Your task to perform on an android device: Go to Wikipedia Image 0: 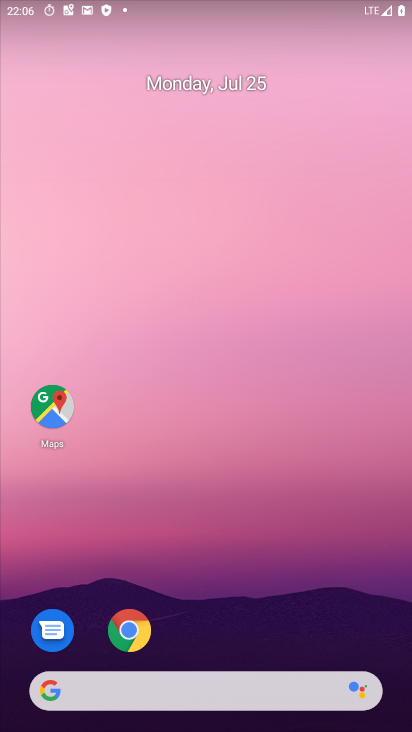
Step 0: press home button
Your task to perform on an android device: Go to Wikipedia Image 1: 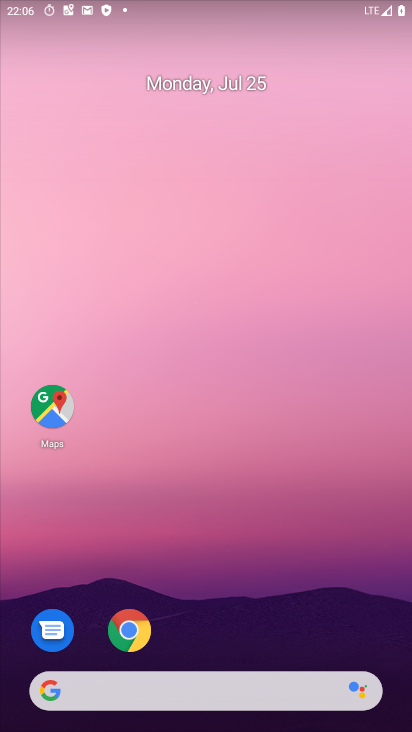
Step 1: click (46, 694)
Your task to perform on an android device: Go to Wikipedia Image 2: 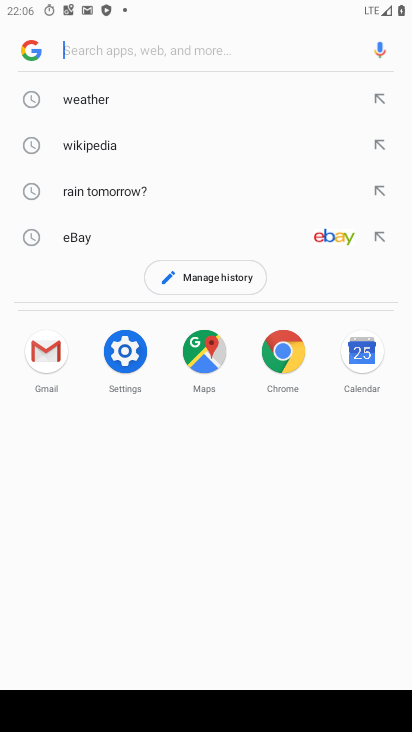
Step 2: click (87, 146)
Your task to perform on an android device: Go to Wikipedia Image 3: 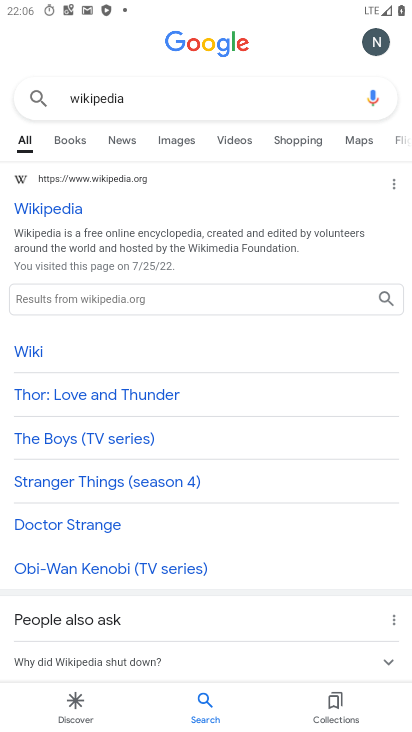
Step 3: click (52, 210)
Your task to perform on an android device: Go to Wikipedia Image 4: 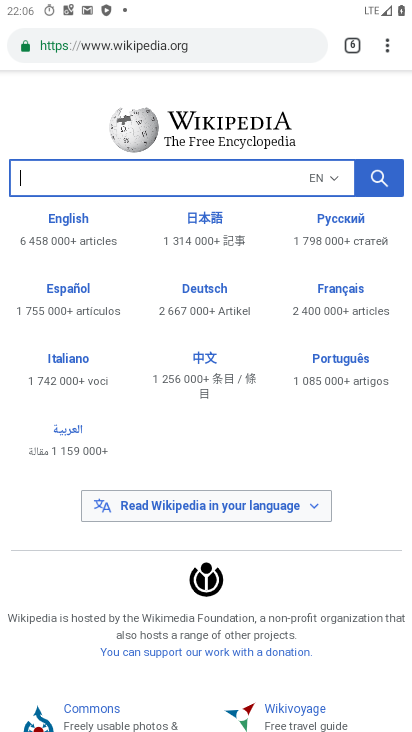
Step 4: task complete